Your task to perform on an android device: toggle notifications settings in the gmail app Image 0: 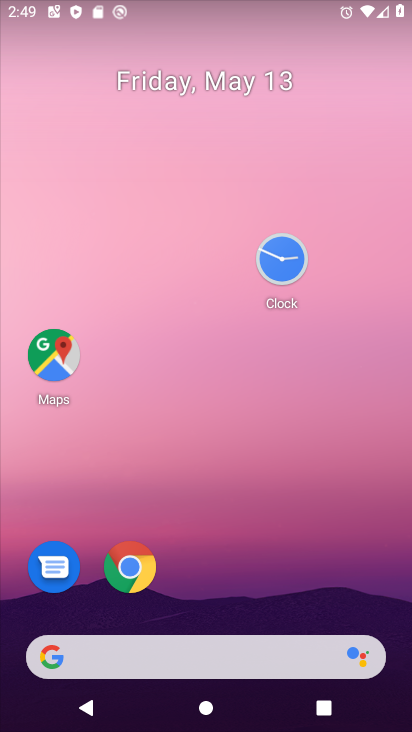
Step 0: drag from (275, 549) to (312, 13)
Your task to perform on an android device: toggle notifications settings in the gmail app Image 1: 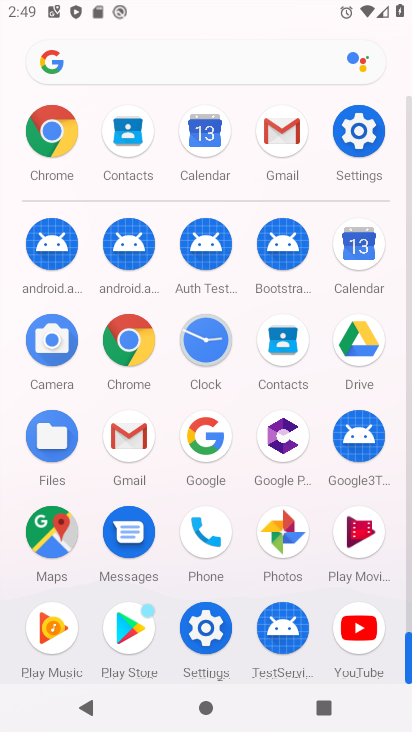
Step 1: click (131, 464)
Your task to perform on an android device: toggle notifications settings in the gmail app Image 2: 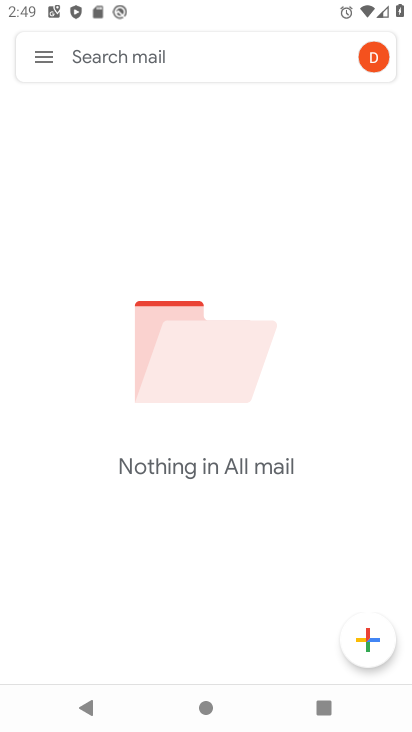
Step 2: click (34, 65)
Your task to perform on an android device: toggle notifications settings in the gmail app Image 3: 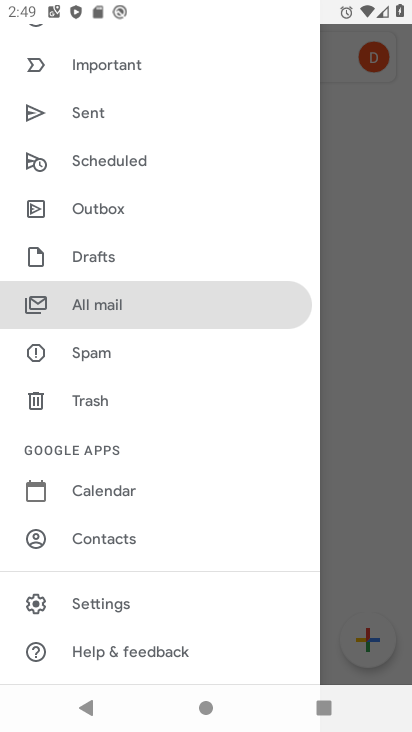
Step 3: click (96, 604)
Your task to perform on an android device: toggle notifications settings in the gmail app Image 4: 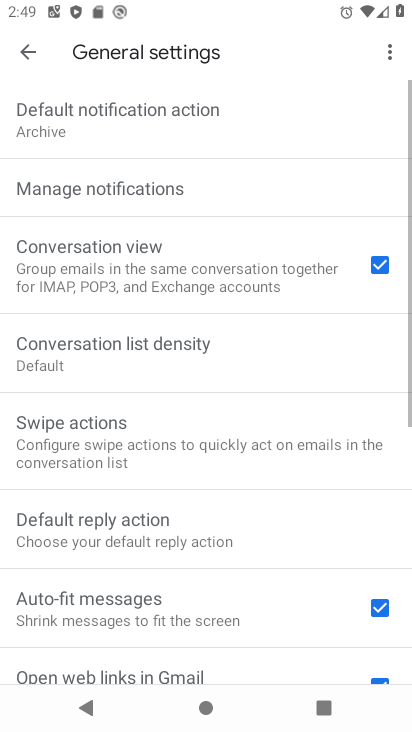
Step 4: click (153, 181)
Your task to perform on an android device: toggle notifications settings in the gmail app Image 5: 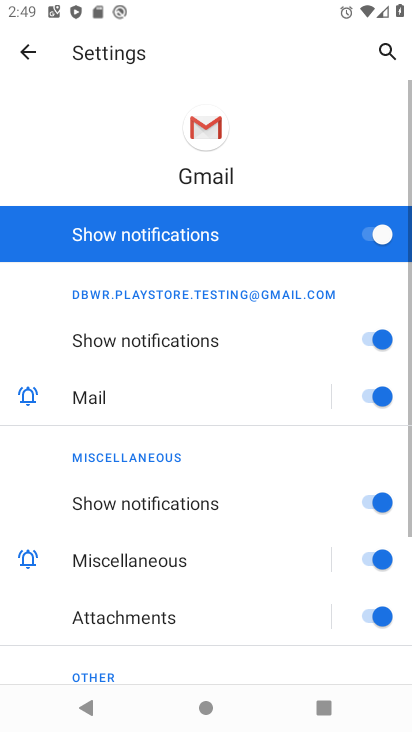
Step 5: click (354, 215)
Your task to perform on an android device: toggle notifications settings in the gmail app Image 6: 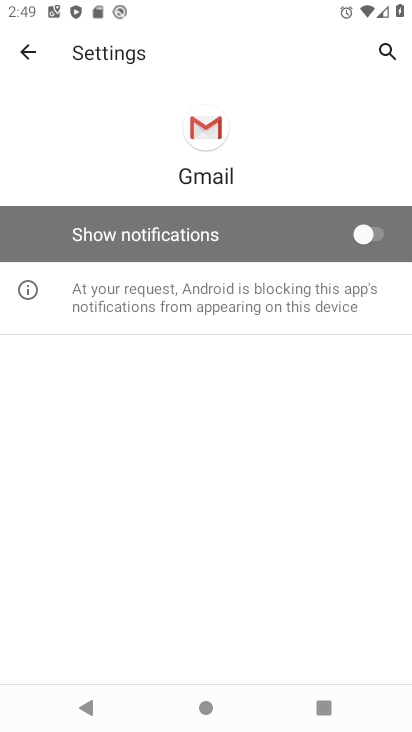
Step 6: task complete